Your task to perform on an android device: turn off wifi Image 0: 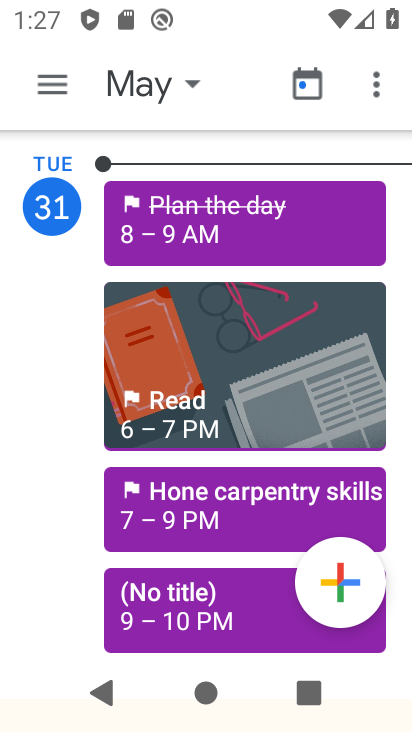
Step 0: task complete